Your task to perform on an android device: What's on my calendar today? Image 0: 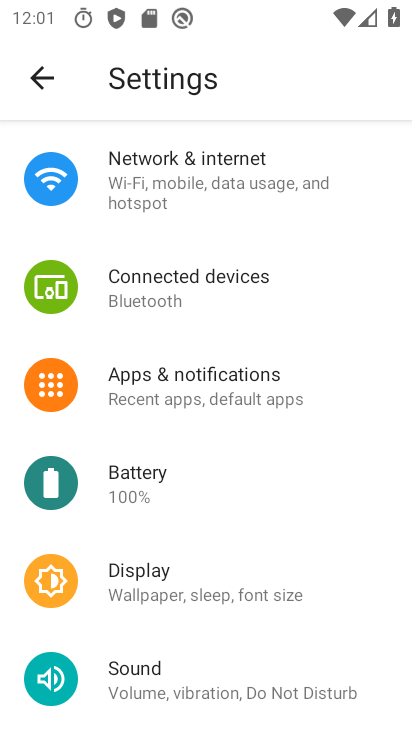
Step 0: press back button
Your task to perform on an android device: What's on my calendar today? Image 1: 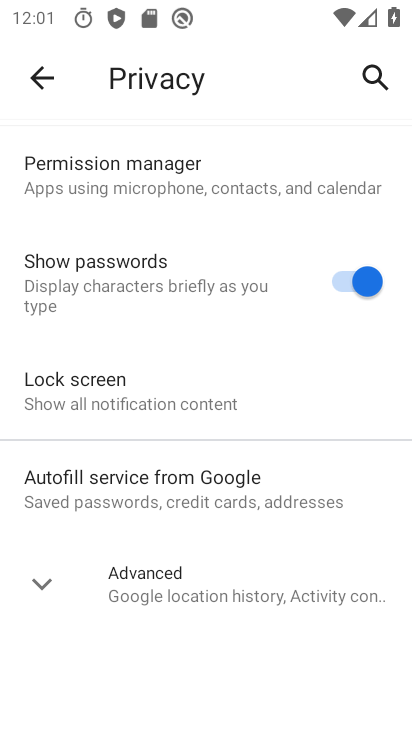
Step 1: press back button
Your task to perform on an android device: What's on my calendar today? Image 2: 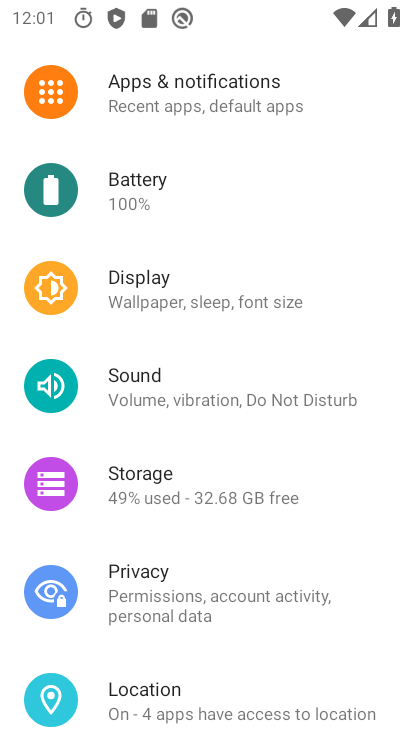
Step 2: press back button
Your task to perform on an android device: What's on my calendar today? Image 3: 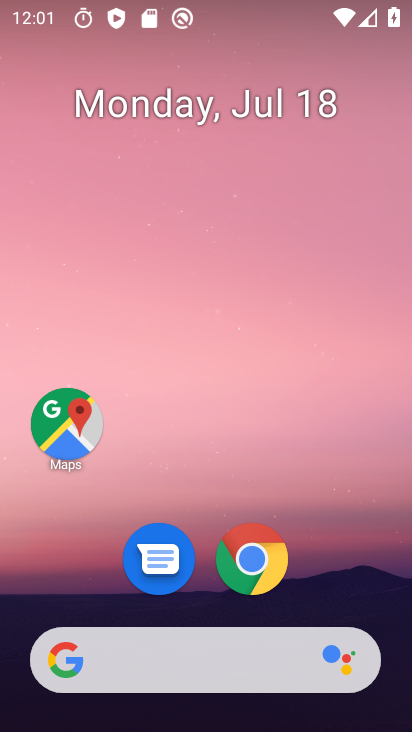
Step 3: drag from (105, 560) to (187, 95)
Your task to perform on an android device: What's on my calendar today? Image 4: 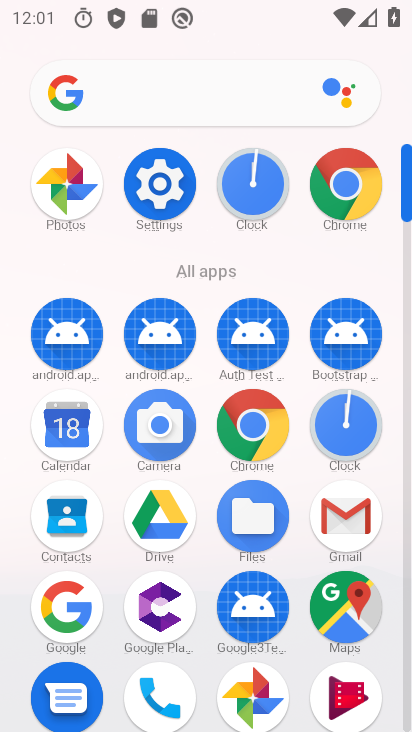
Step 4: click (58, 426)
Your task to perform on an android device: What's on my calendar today? Image 5: 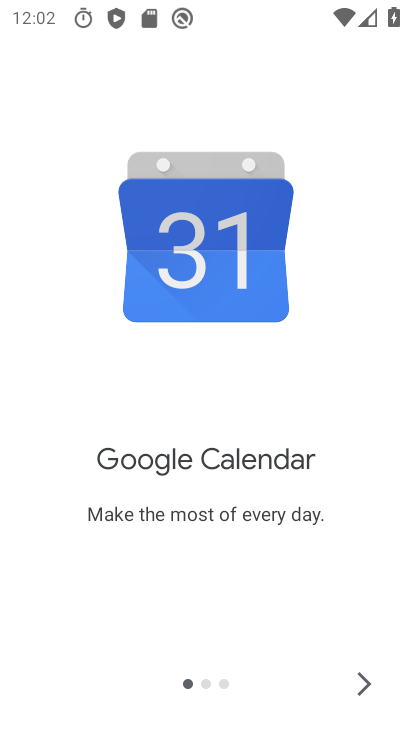
Step 5: click (367, 674)
Your task to perform on an android device: What's on my calendar today? Image 6: 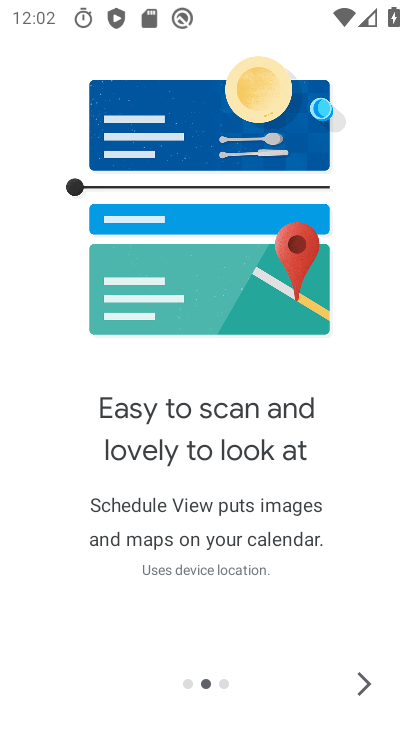
Step 6: click (366, 683)
Your task to perform on an android device: What's on my calendar today? Image 7: 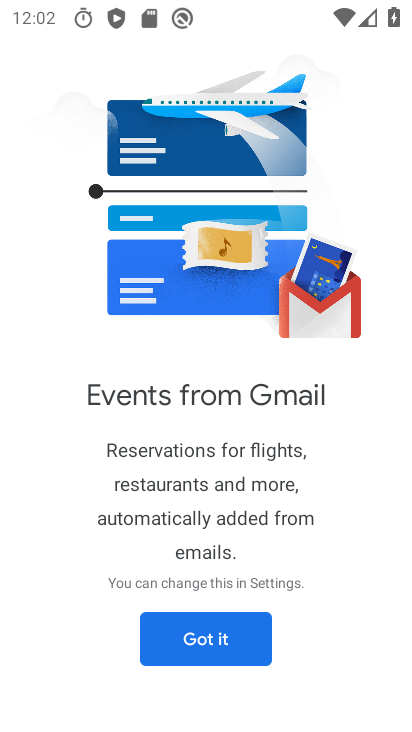
Step 7: click (200, 636)
Your task to perform on an android device: What's on my calendar today? Image 8: 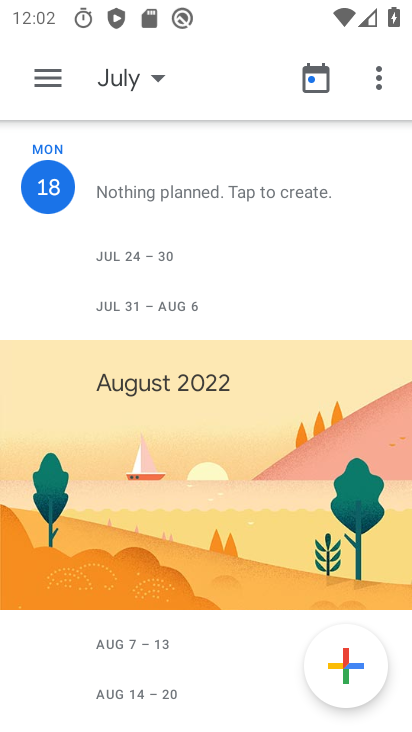
Step 8: task complete